Your task to perform on an android device: uninstall "Microsoft Outlook" Image 0: 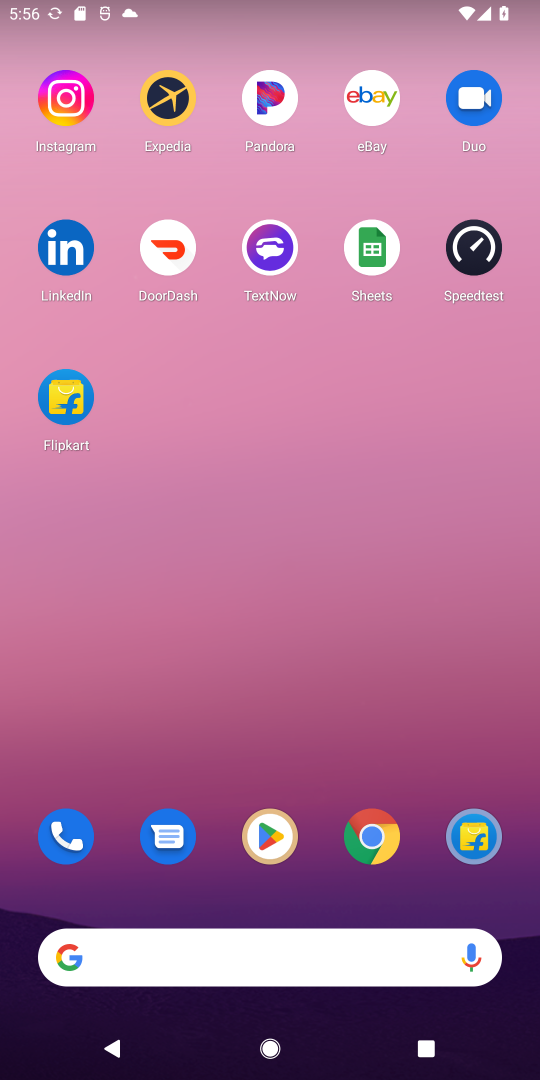
Step 0: click (271, 834)
Your task to perform on an android device: uninstall "Microsoft Outlook" Image 1: 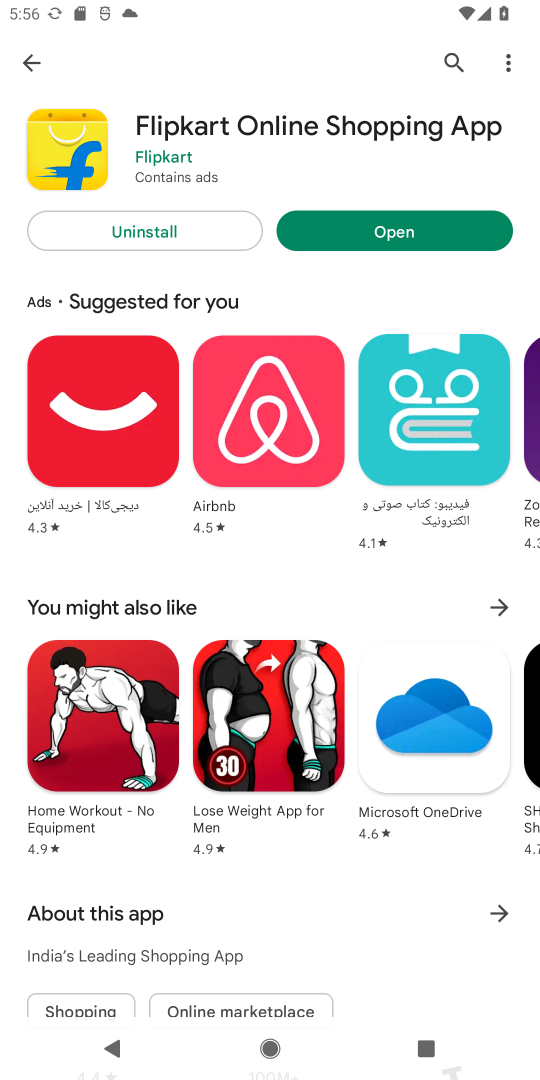
Step 1: click (448, 53)
Your task to perform on an android device: uninstall "Microsoft Outlook" Image 2: 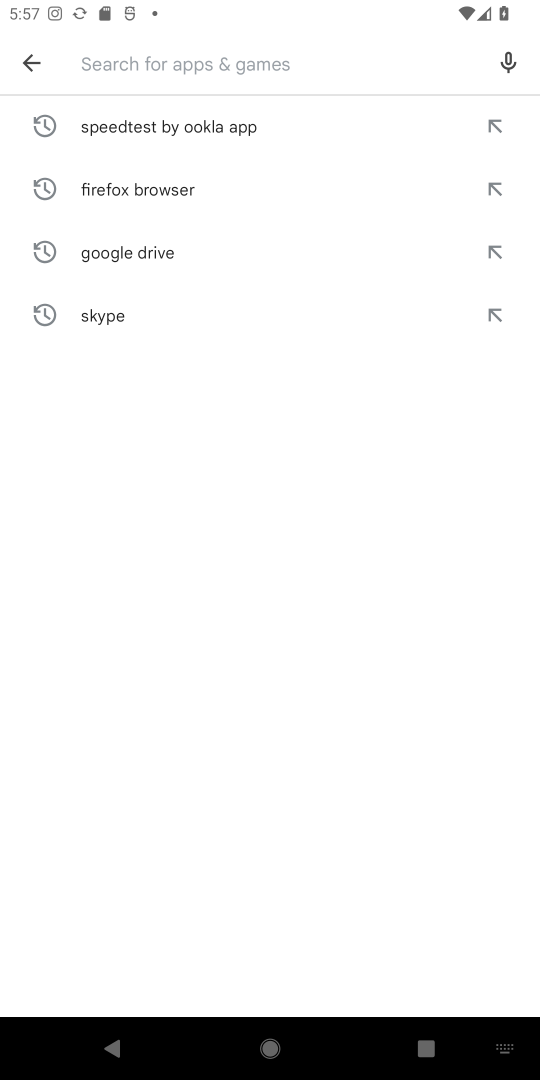
Step 2: type "Microsoft Outlook"
Your task to perform on an android device: uninstall "Microsoft Outlook" Image 3: 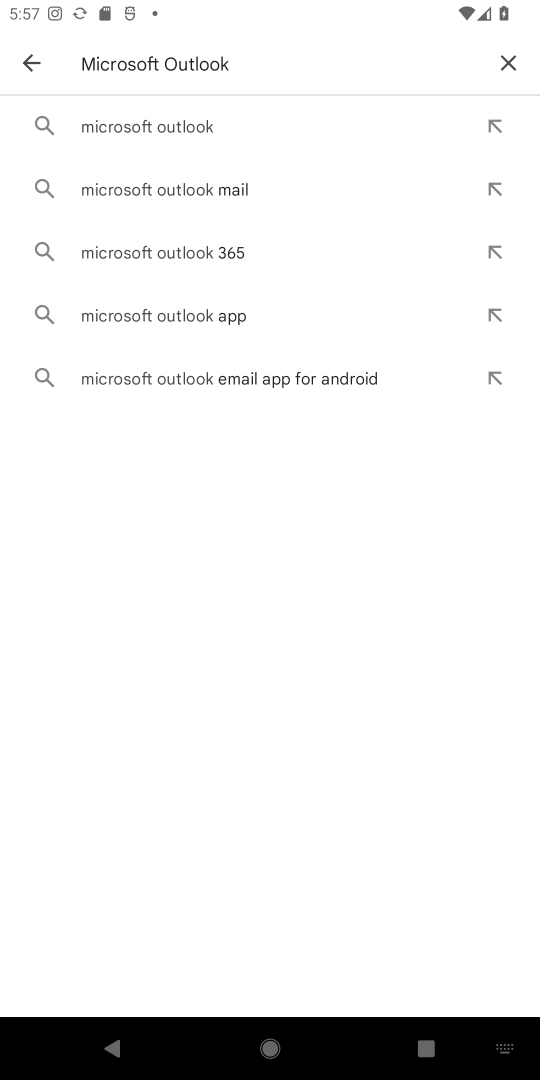
Step 3: click (180, 119)
Your task to perform on an android device: uninstall "Microsoft Outlook" Image 4: 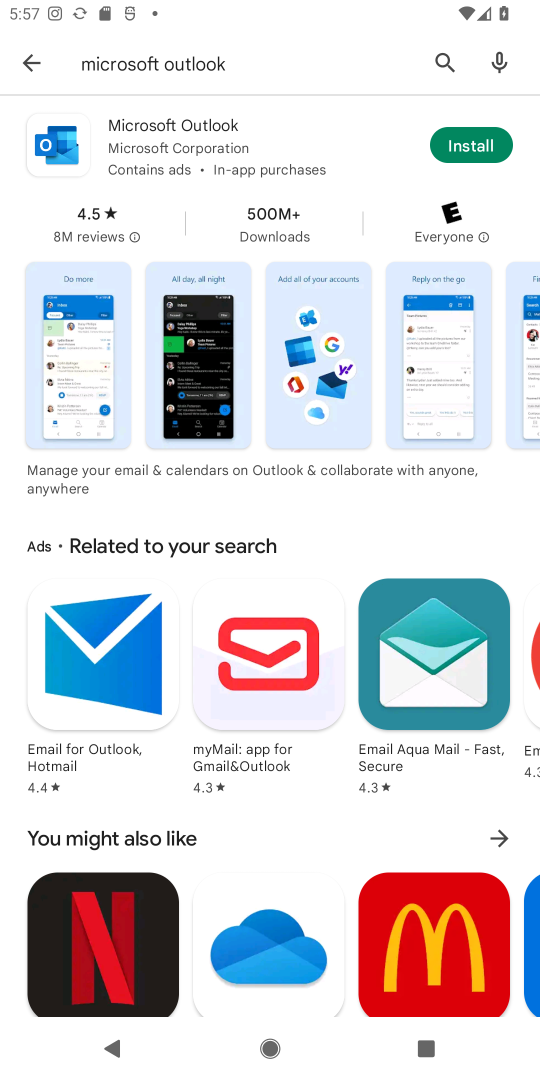
Step 4: click (141, 138)
Your task to perform on an android device: uninstall "Microsoft Outlook" Image 5: 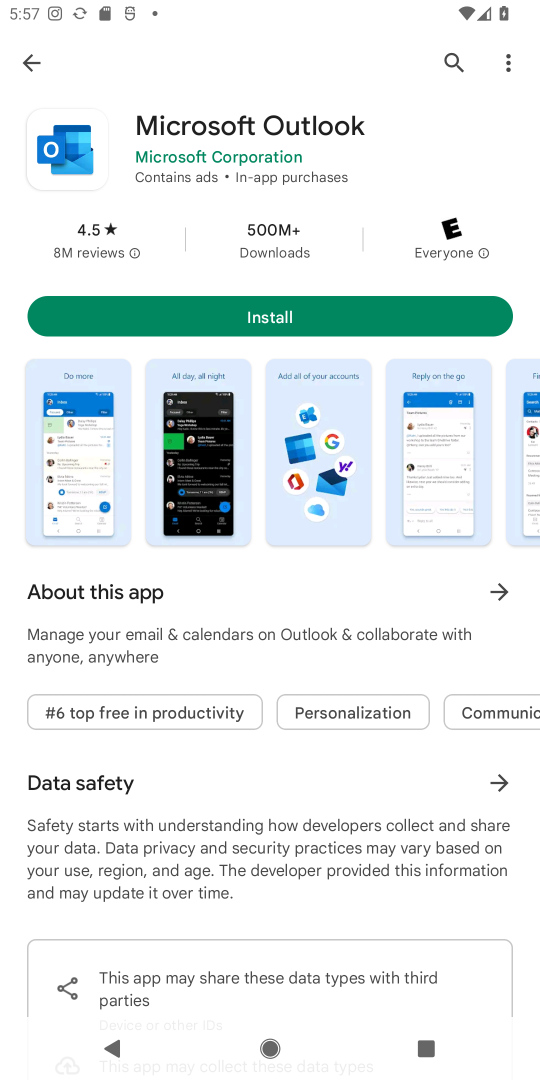
Step 5: task complete